Your task to perform on an android device: Show the shopping cart on target. Add "macbook pro 13 inch" to the cart on target, then select checkout. Image 0: 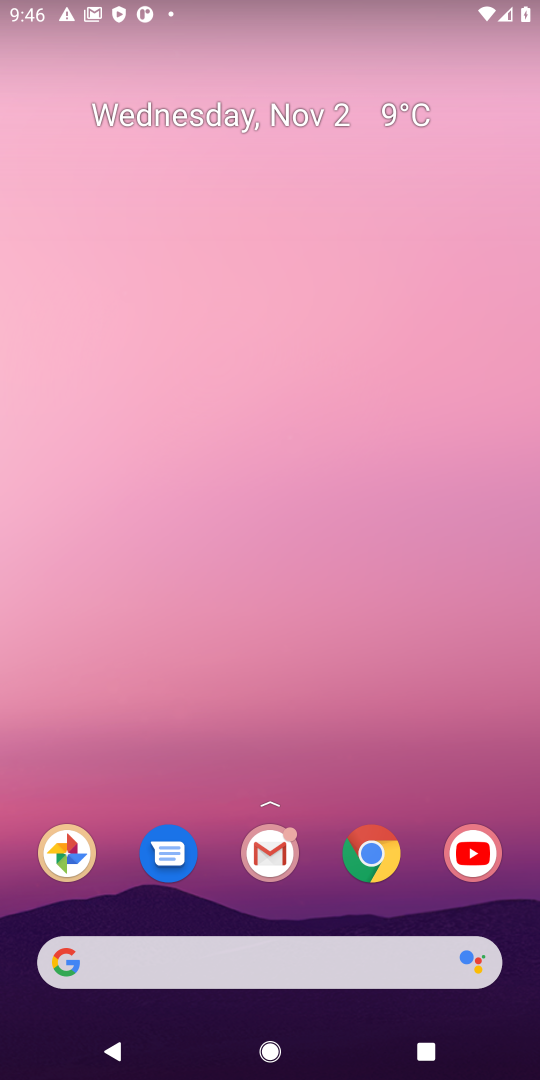
Step 0: click (372, 857)
Your task to perform on an android device: Show the shopping cart on target. Add "macbook pro 13 inch" to the cart on target, then select checkout. Image 1: 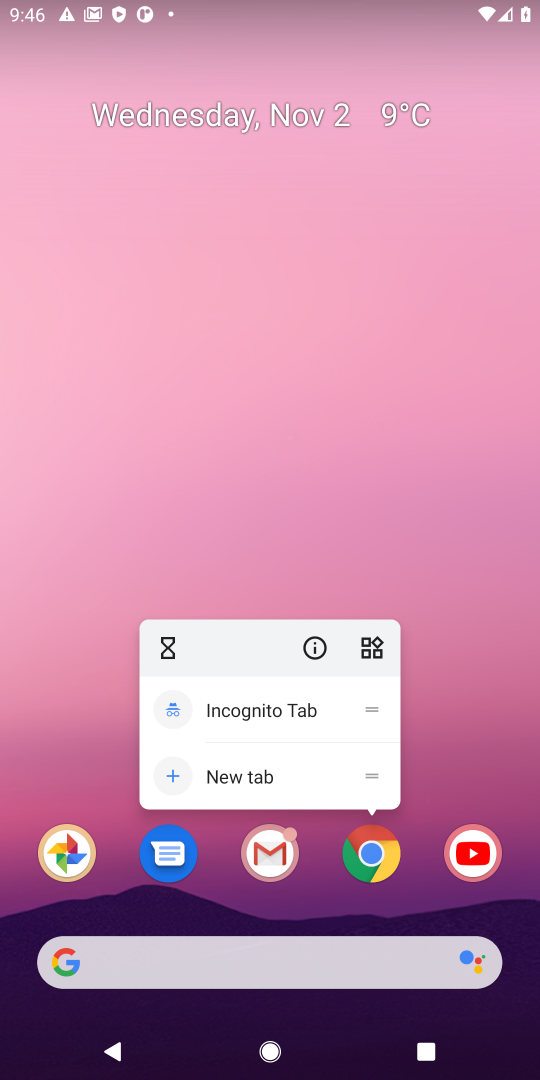
Step 1: click (372, 850)
Your task to perform on an android device: Show the shopping cart on target. Add "macbook pro 13 inch" to the cart on target, then select checkout. Image 2: 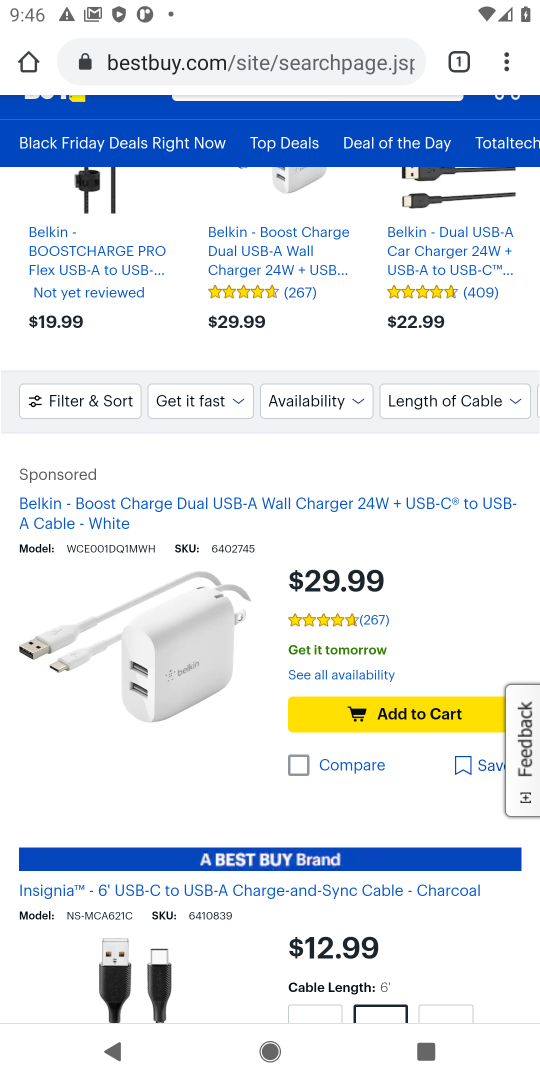
Step 2: click (229, 64)
Your task to perform on an android device: Show the shopping cart on target. Add "macbook pro 13 inch" to the cart on target, then select checkout. Image 3: 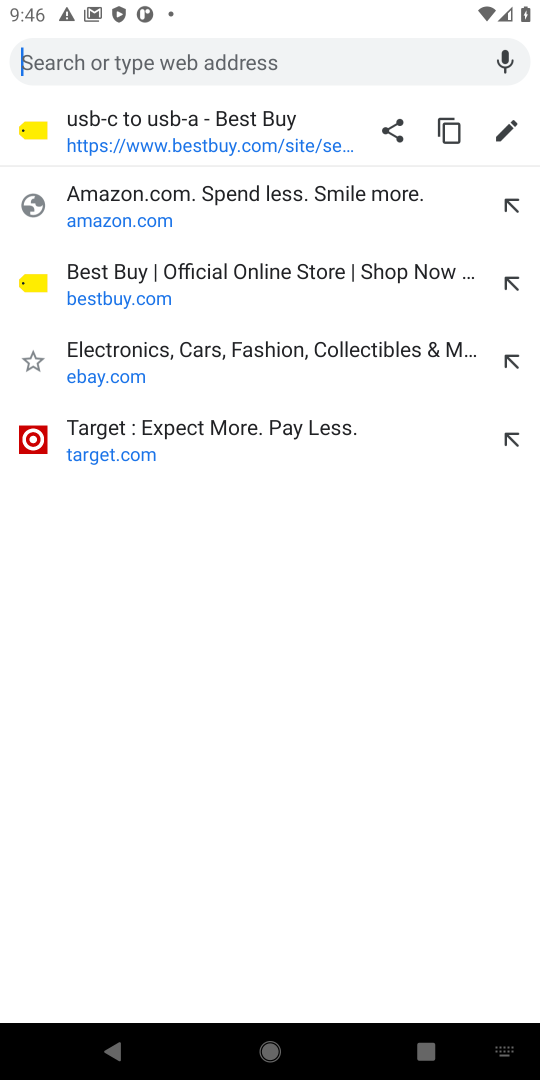
Step 3: click (119, 430)
Your task to perform on an android device: Show the shopping cart on target. Add "macbook pro 13 inch" to the cart on target, then select checkout. Image 4: 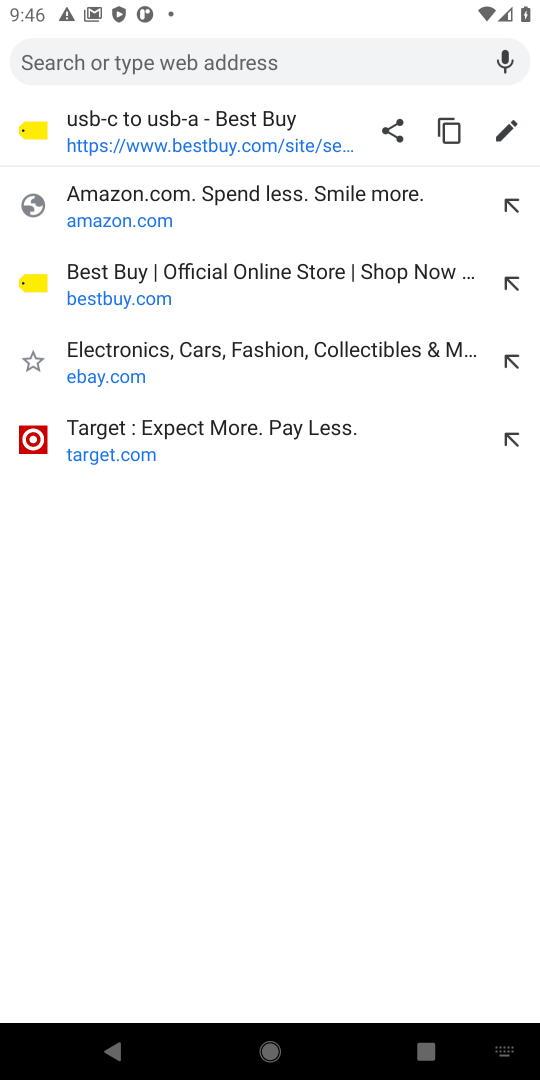
Step 4: click (99, 433)
Your task to perform on an android device: Show the shopping cart on target. Add "macbook pro 13 inch" to the cart on target, then select checkout. Image 5: 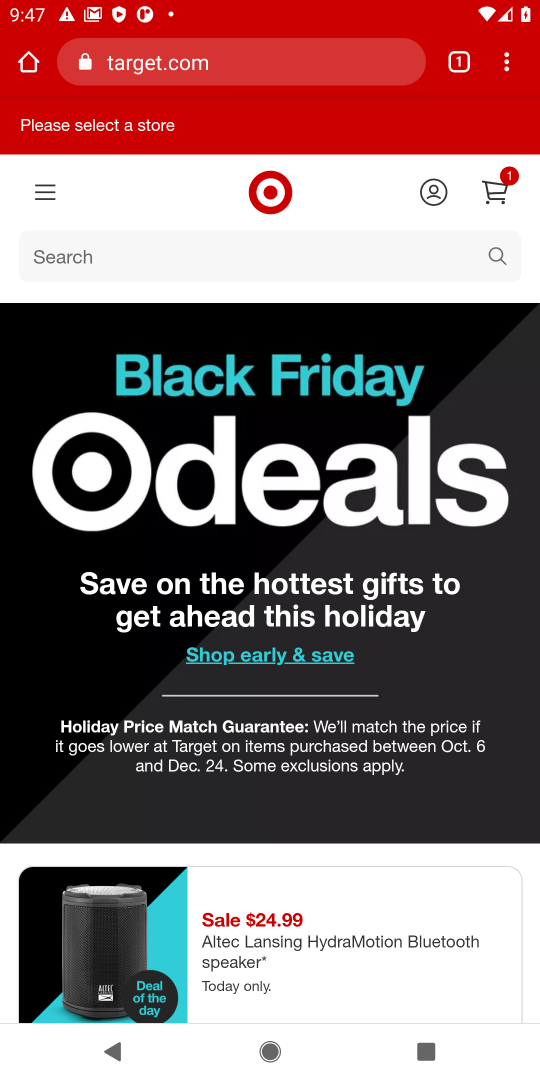
Step 5: click (139, 249)
Your task to perform on an android device: Show the shopping cart on target. Add "macbook pro 13 inch" to the cart on target, then select checkout. Image 6: 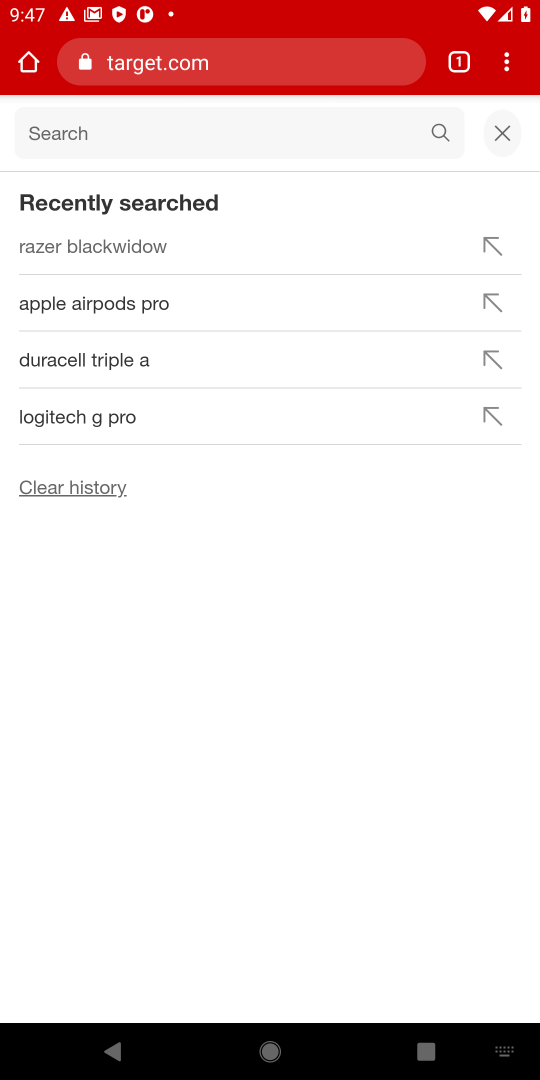
Step 6: type "macbook pro 13 inch"
Your task to perform on an android device: Show the shopping cart on target. Add "macbook pro 13 inch" to the cart on target, then select checkout. Image 7: 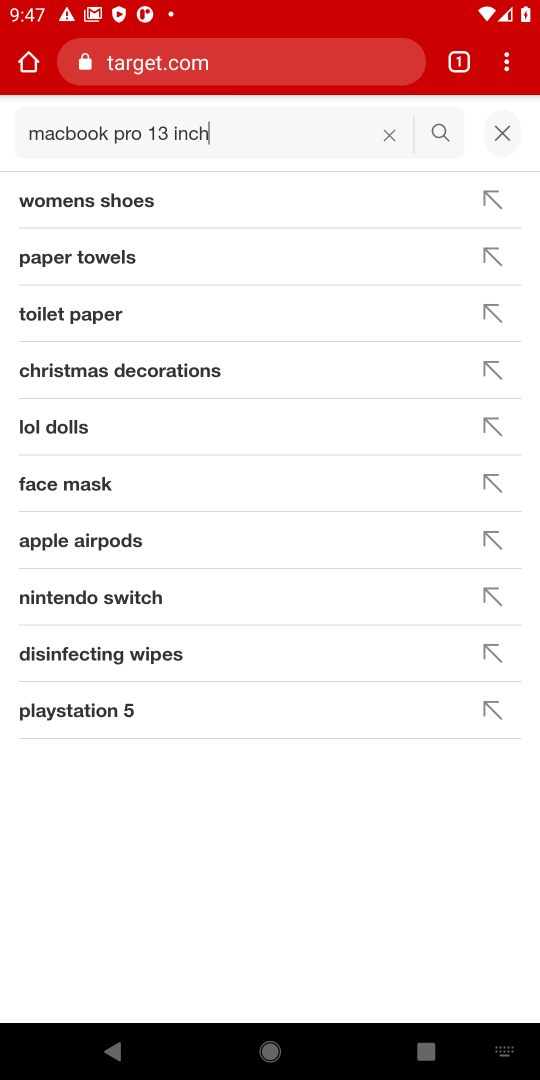
Step 7: press enter
Your task to perform on an android device: Show the shopping cart on target. Add "macbook pro 13 inch" to the cart on target, then select checkout. Image 8: 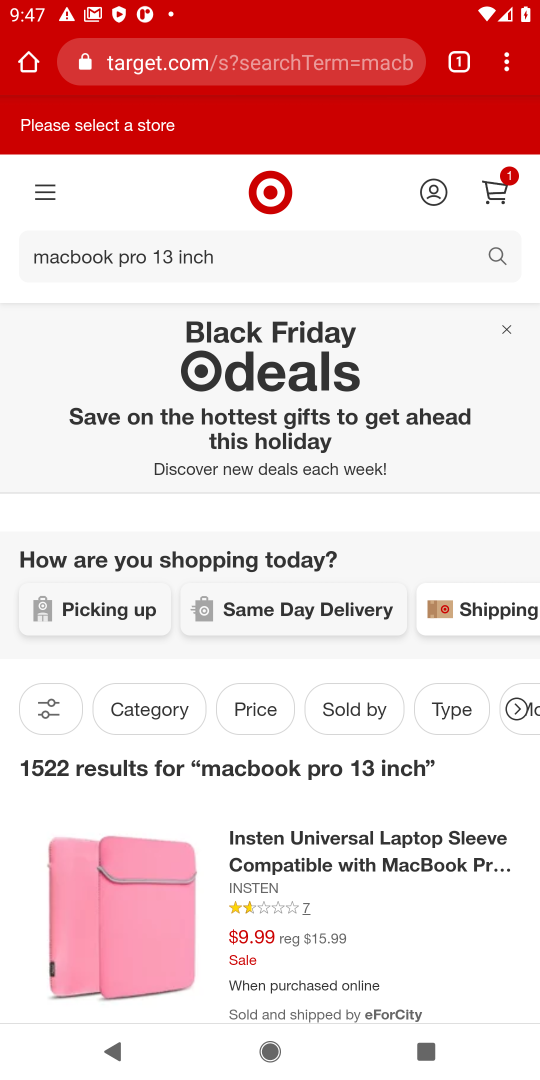
Step 8: drag from (332, 980) to (414, 614)
Your task to perform on an android device: Show the shopping cart on target. Add "macbook pro 13 inch" to the cart on target, then select checkout. Image 9: 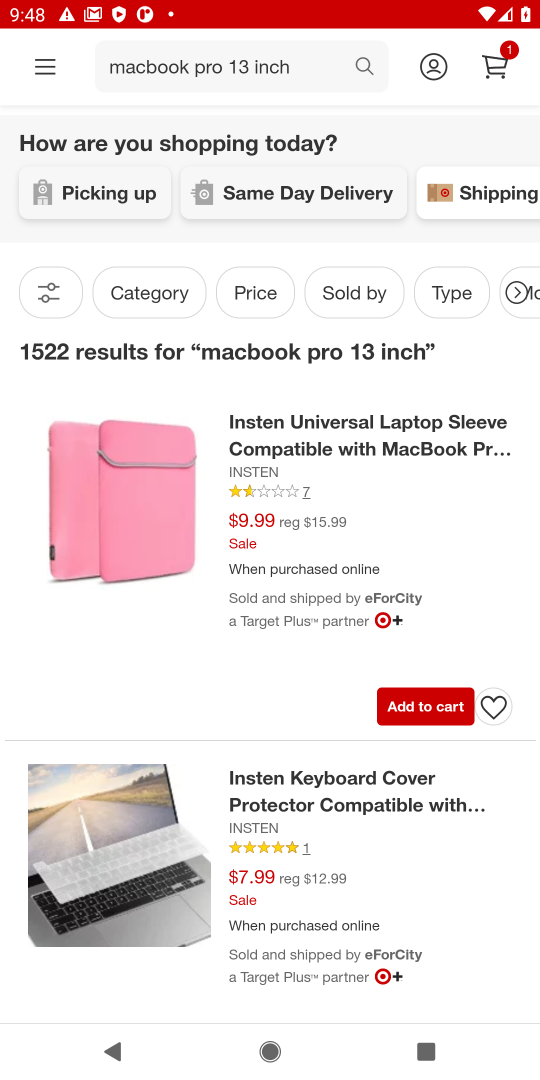
Step 9: drag from (273, 932) to (288, 569)
Your task to perform on an android device: Show the shopping cart on target. Add "macbook pro 13 inch" to the cart on target, then select checkout. Image 10: 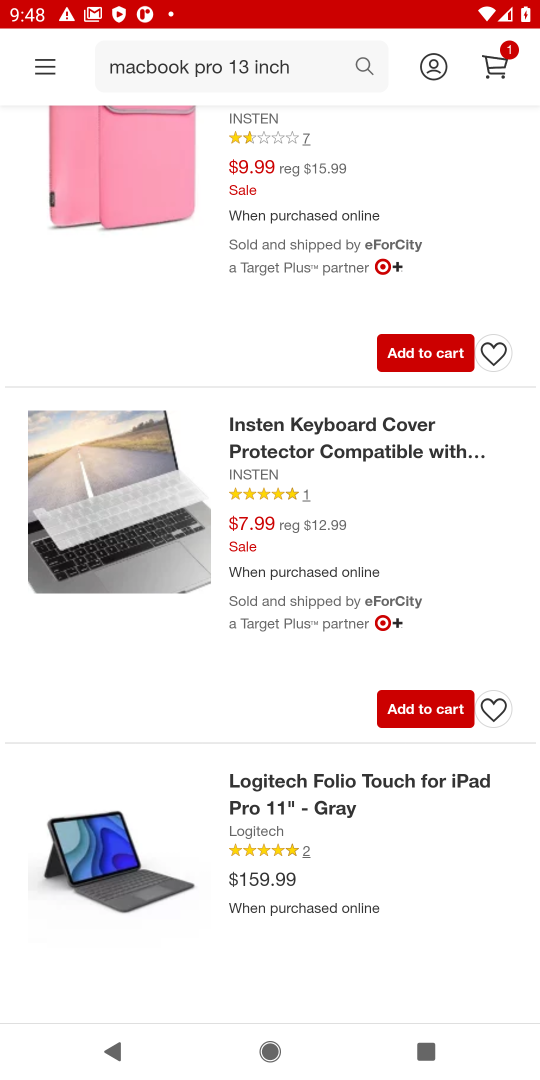
Step 10: drag from (339, 496) to (281, 895)
Your task to perform on an android device: Show the shopping cart on target. Add "macbook pro 13 inch" to the cart on target, then select checkout. Image 11: 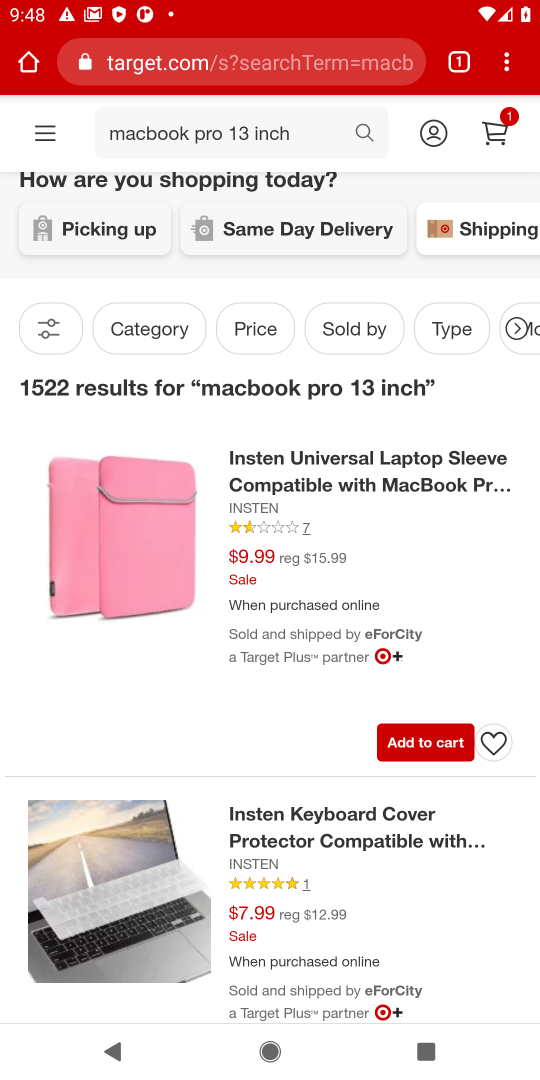
Step 11: click (380, 481)
Your task to perform on an android device: Show the shopping cart on target. Add "macbook pro 13 inch" to the cart on target, then select checkout. Image 12: 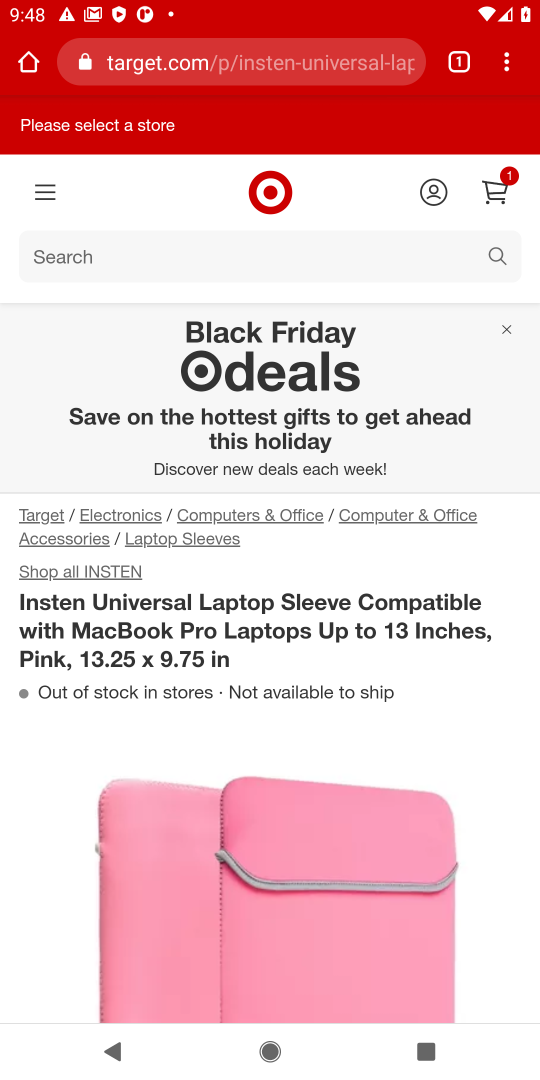
Step 12: drag from (292, 948) to (395, 481)
Your task to perform on an android device: Show the shopping cart on target. Add "macbook pro 13 inch" to the cart on target, then select checkout. Image 13: 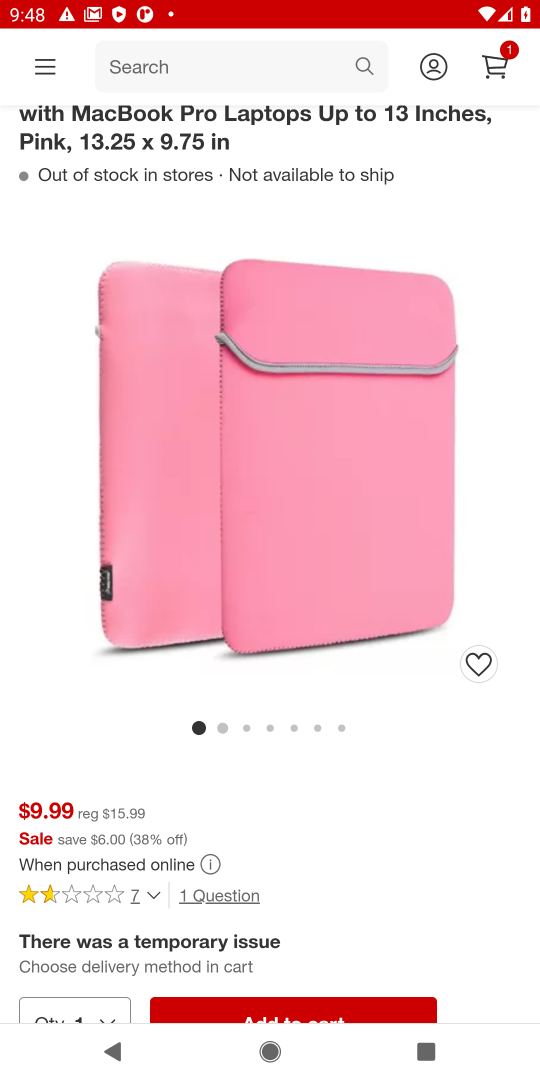
Step 13: drag from (263, 915) to (333, 629)
Your task to perform on an android device: Show the shopping cart on target. Add "macbook pro 13 inch" to the cart on target, then select checkout. Image 14: 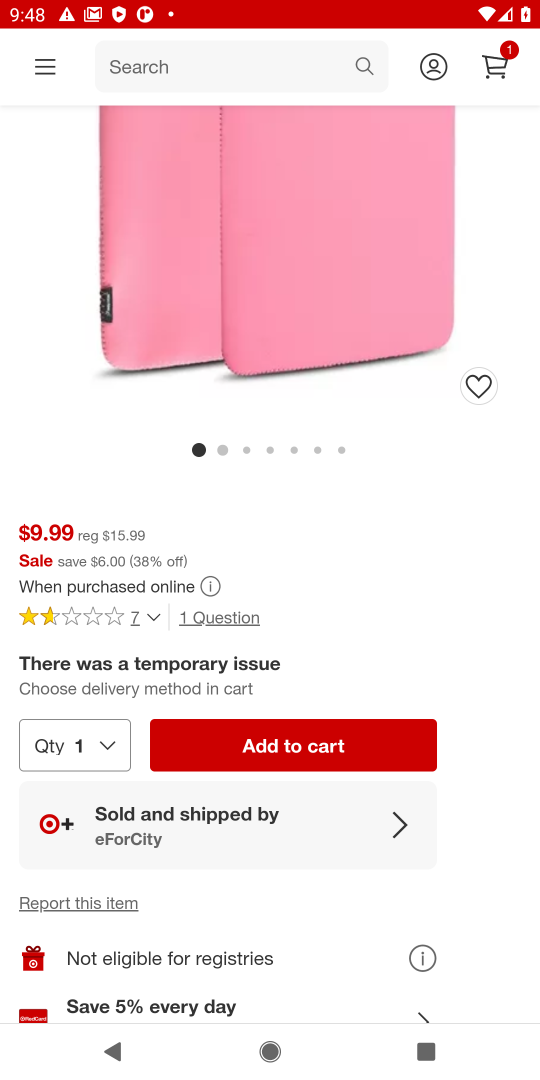
Step 14: click (310, 745)
Your task to perform on an android device: Show the shopping cart on target. Add "macbook pro 13 inch" to the cart on target, then select checkout. Image 15: 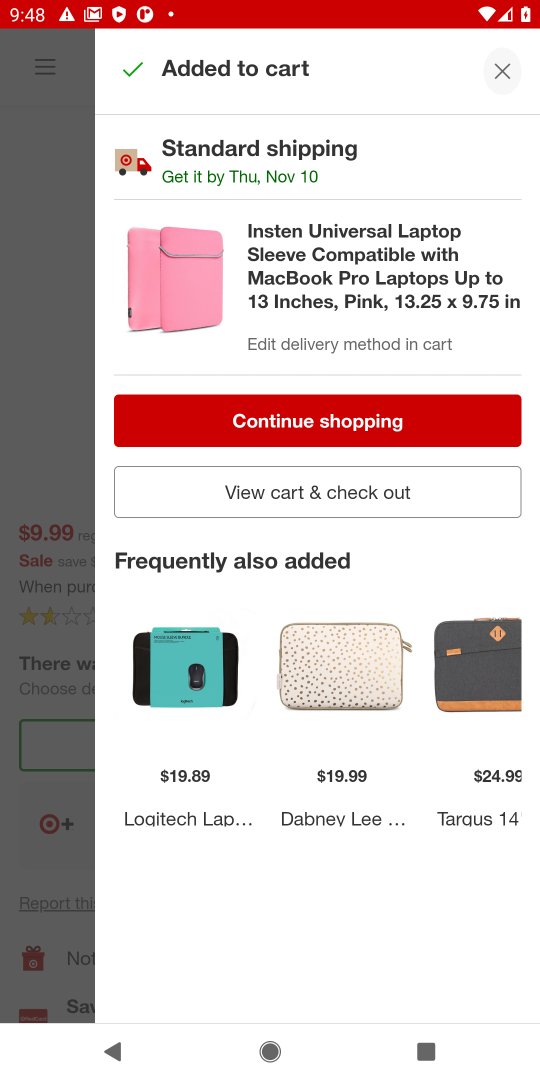
Step 15: click (319, 484)
Your task to perform on an android device: Show the shopping cart on target. Add "macbook pro 13 inch" to the cart on target, then select checkout. Image 16: 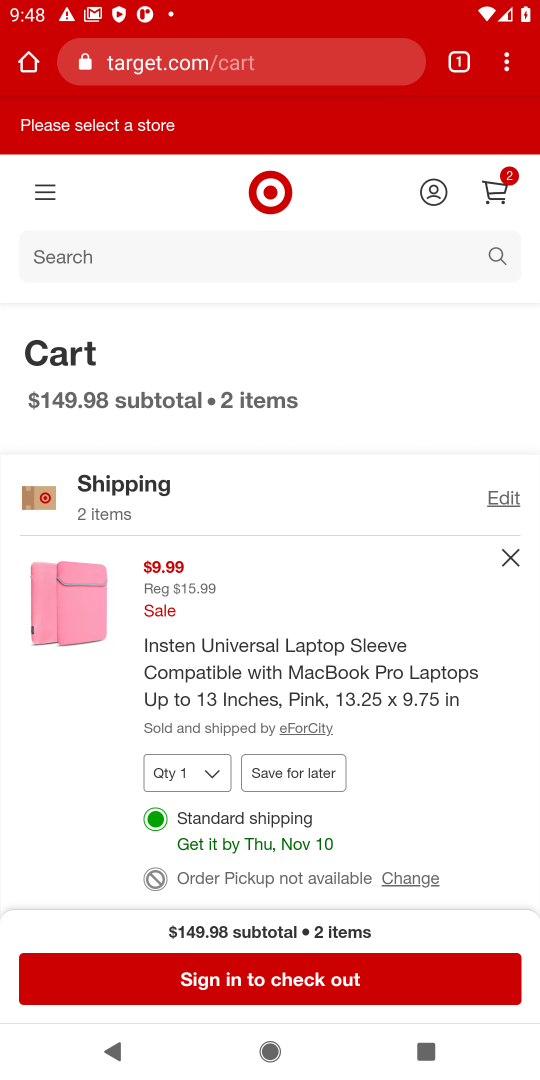
Step 16: click (264, 978)
Your task to perform on an android device: Show the shopping cart on target. Add "macbook pro 13 inch" to the cart on target, then select checkout. Image 17: 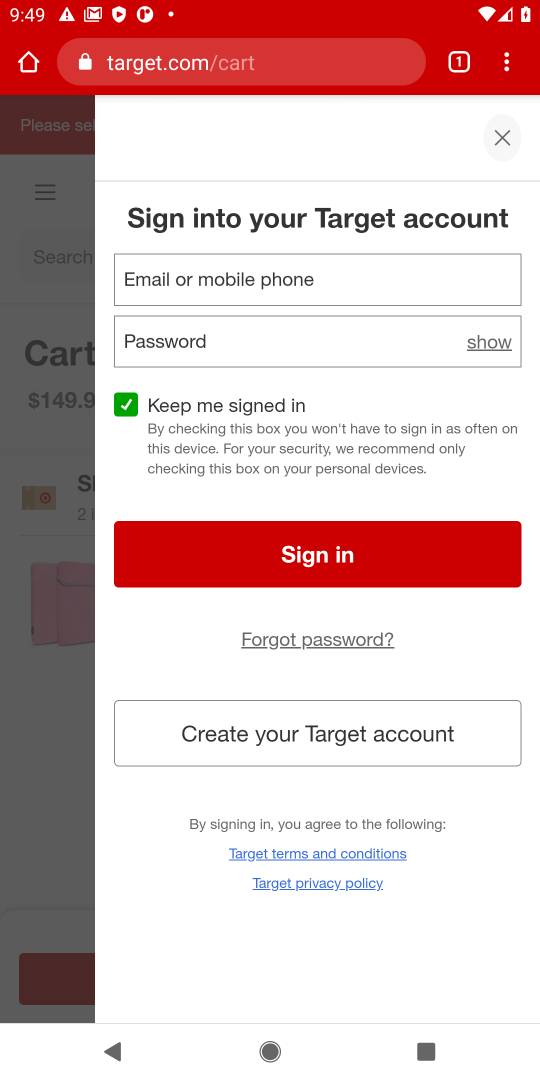
Step 17: task complete